Your task to perform on an android device: Go to Amazon Image 0: 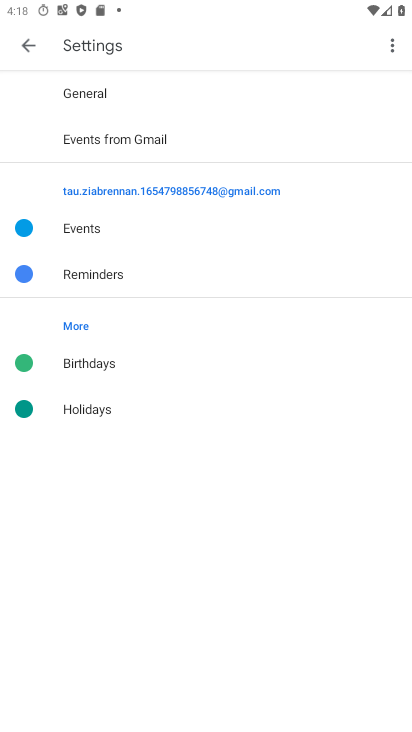
Step 0: press home button
Your task to perform on an android device: Go to Amazon Image 1: 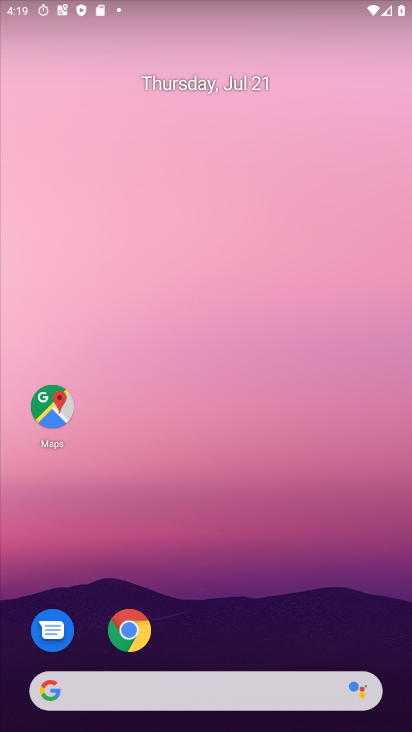
Step 1: drag from (182, 691) to (279, 150)
Your task to perform on an android device: Go to Amazon Image 2: 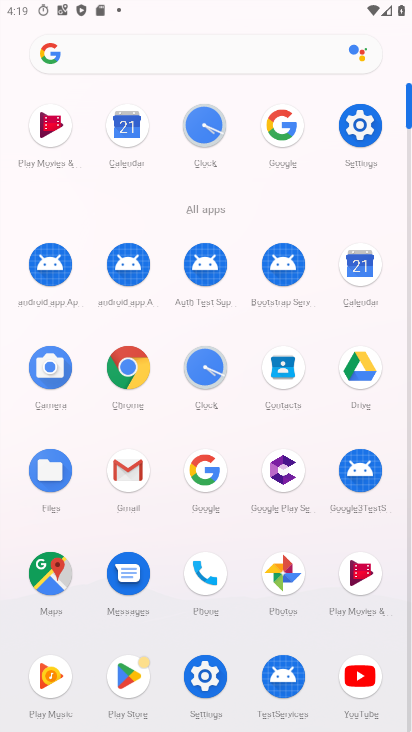
Step 2: click (205, 470)
Your task to perform on an android device: Go to Amazon Image 3: 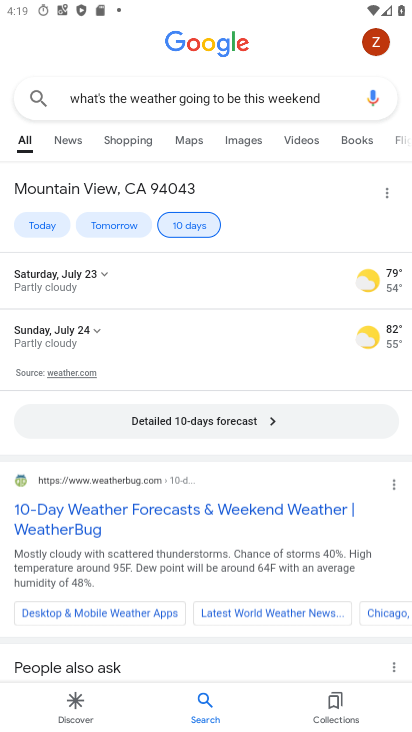
Step 3: click (330, 98)
Your task to perform on an android device: Go to Amazon Image 4: 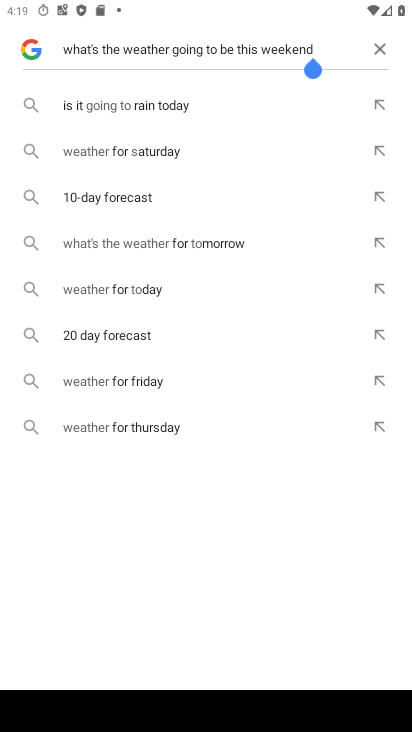
Step 4: click (378, 46)
Your task to perform on an android device: Go to Amazon Image 5: 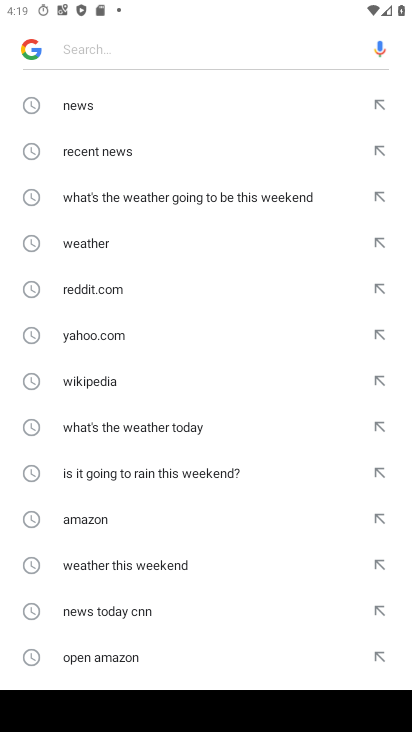
Step 5: type "Amazon"
Your task to perform on an android device: Go to Amazon Image 6: 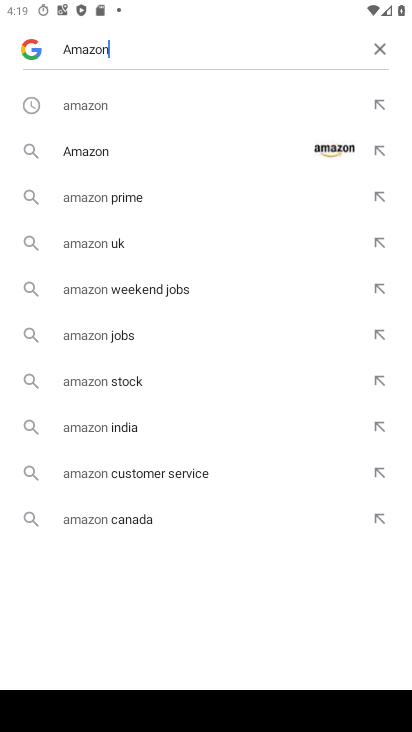
Step 6: click (87, 106)
Your task to perform on an android device: Go to Amazon Image 7: 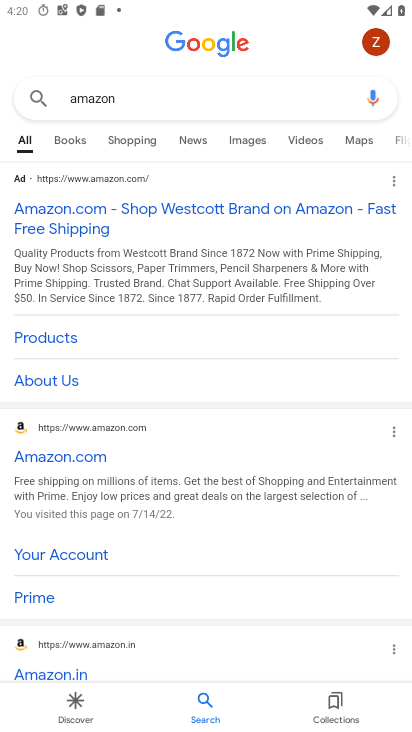
Step 7: click (106, 458)
Your task to perform on an android device: Go to Amazon Image 8: 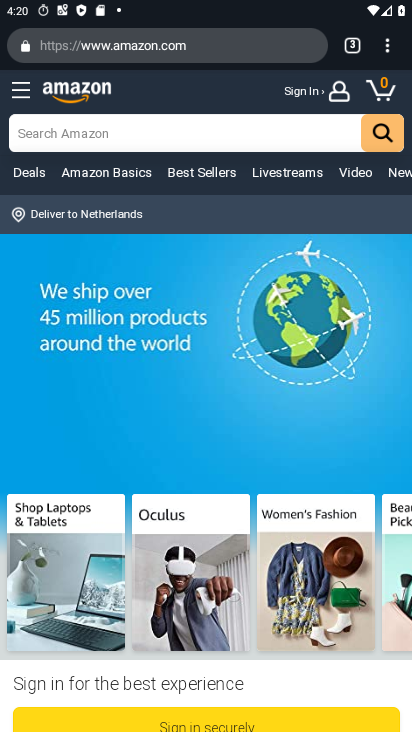
Step 8: task complete